Your task to perform on an android device: Look up the best rated headphones on Aliexpress Image 0: 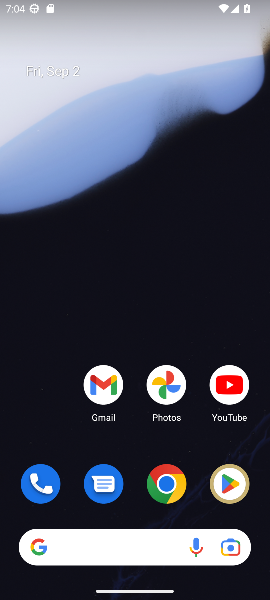
Step 0: click (171, 486)
Your task to perform on an android device: Look up the best rated headphones on Aliexpress Image 1: 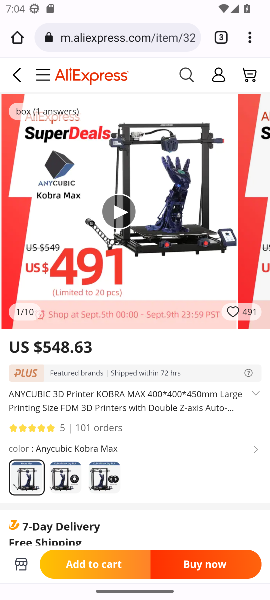
Step 1: click (185, 74)
Your task to perform on an android device: Look up the best rated headphones on Aliexpress Image 2: 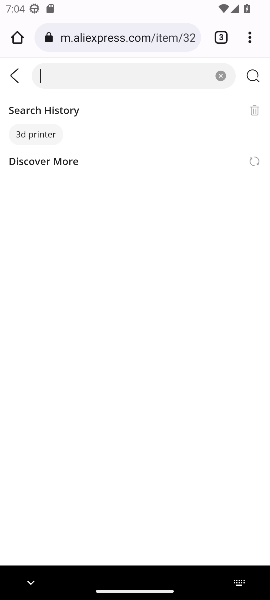
Step 2: type " headphones"
Your task to perform on an android device: Look up the best rated headphones on Aliexpress Image 3: 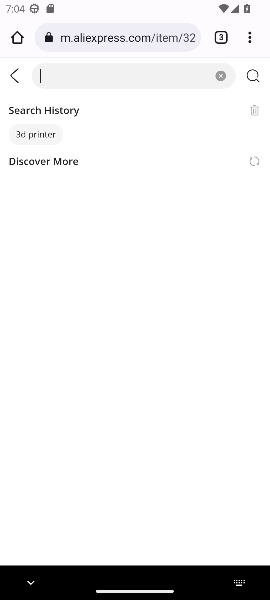
Step 3: press enter
Your task to perform on an android device: Look up the best rated headphones on Aliexpress Image 4: 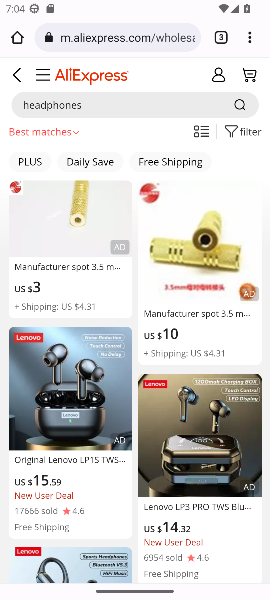
Step 4: task complete